Your task to perform on an android device: snooze an email in the gmail app Image 0: 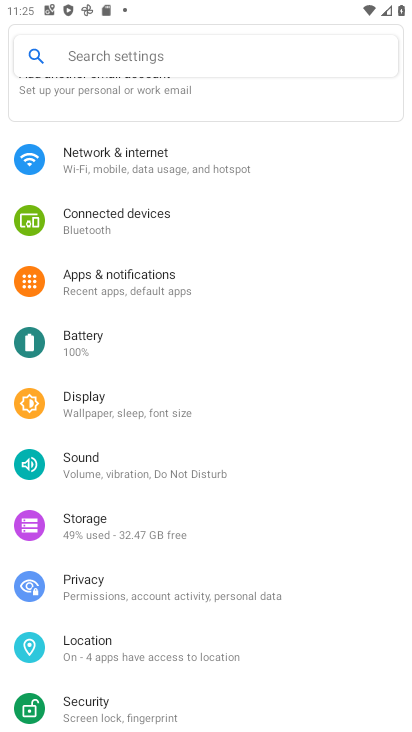
Step 0: press home button
Your task to perform on an android device: snooze an email in the gmail app Image 1: 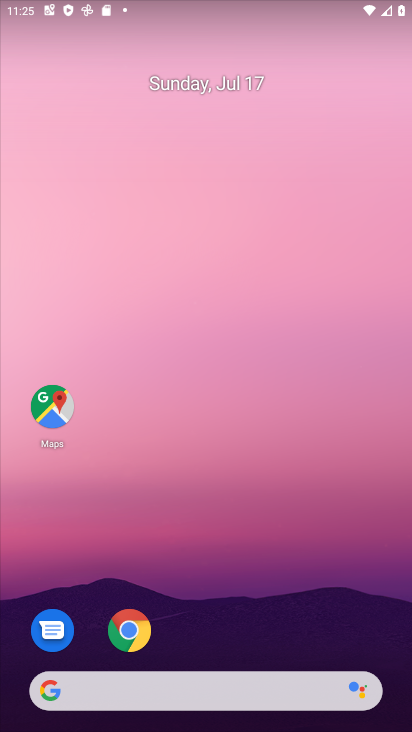
Step 1: drag from (258, 618) to (250, 249)
Your task to perform on an android device: snooze an email in the gmail app Image 2: 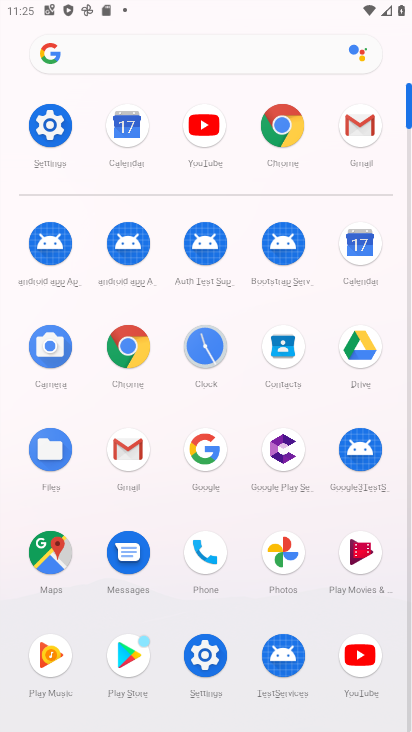
Step 2: click (363, 145)
Your task to perform on an android device: snooze an email in the gmail app Image 3: 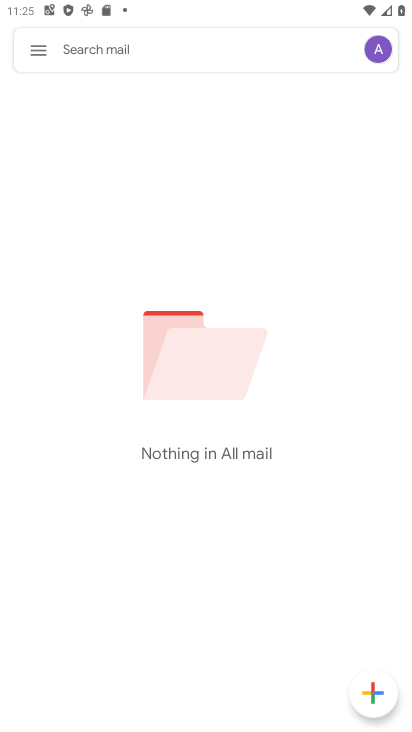
Step 3: click (40, 53)
Your task to perform on an android device: snooze an email in the gmail app Image 4: 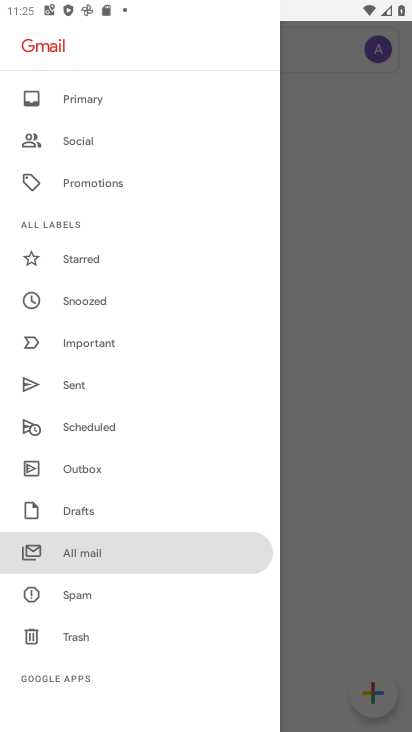
Step 4: click (99, 304)
Your task to perform on an android device: snooze an email in the gmail app Image 5: 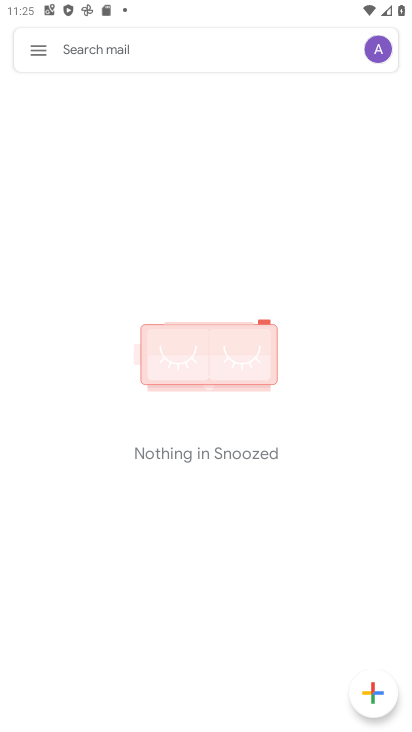
Step 5: task complete